Your task to perform on an android device: Open Chrome and go to the settings page Image 0: 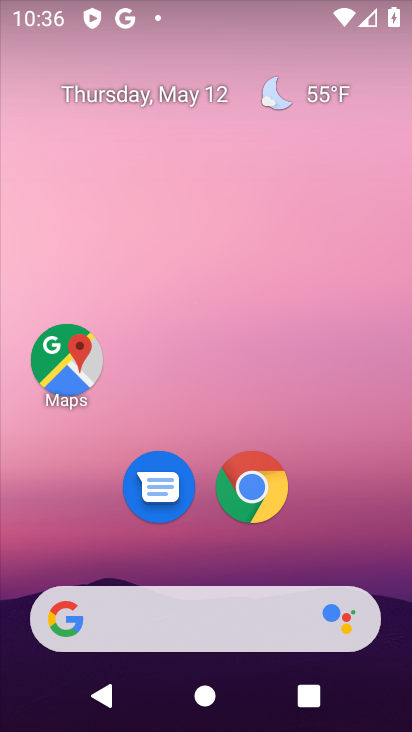
Step 0: click (260, 494)
Your task to perform on an android device: Open Chrome and go to the settings page Image 1: 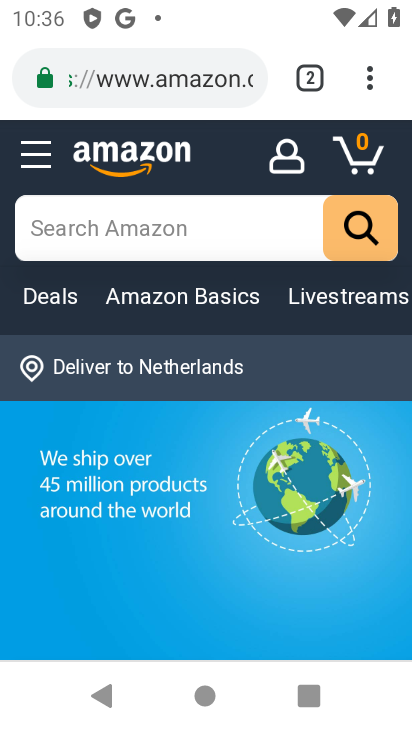
Step 1: click (373, 78)
Your task to perform on an android device: Open Chrome and go to the settings page Image 2: 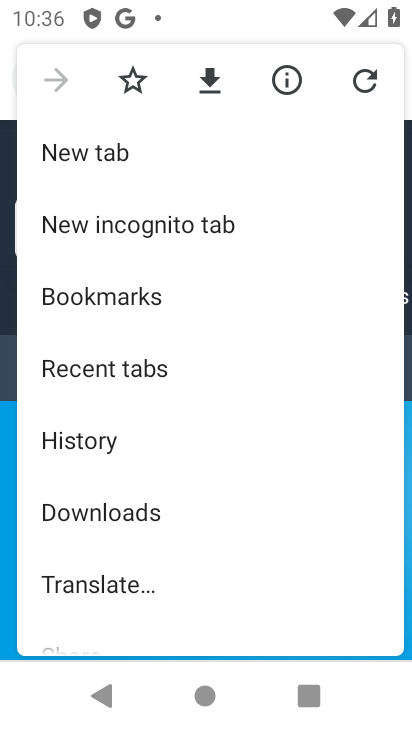
Step 2: drag from (260, 586) to (241, 44)
Your task to perform on an android device: Open Chrome and go to the settings page Image 3: 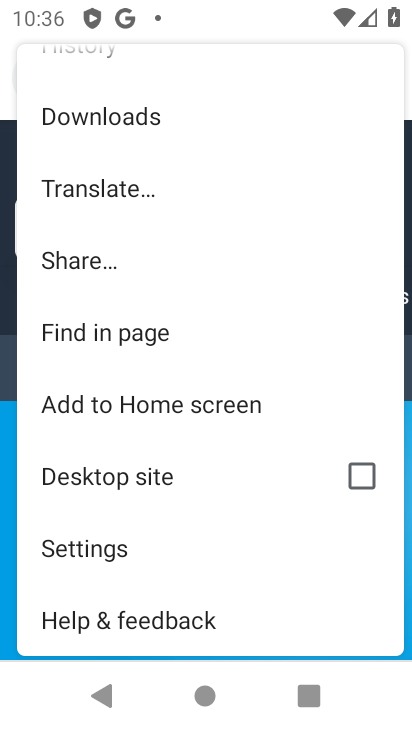
Step 3: click (111, 546)
Your task to perform on an android device: Open Chrome and go to the settings page Image 4: 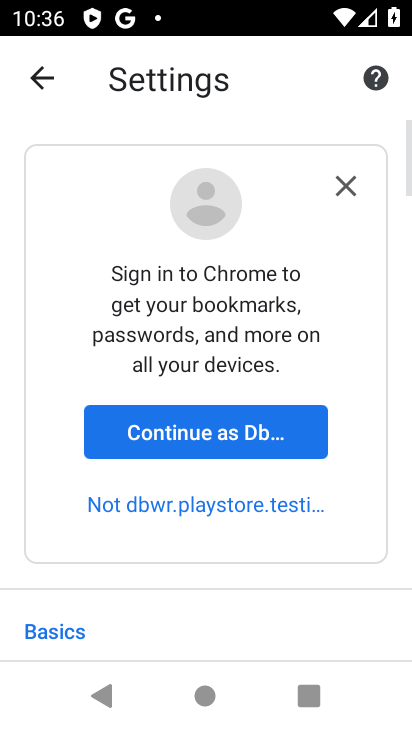
Step 4: task complete